Your task to perform on an android device: toggle pop-ups in chrome Image 0: 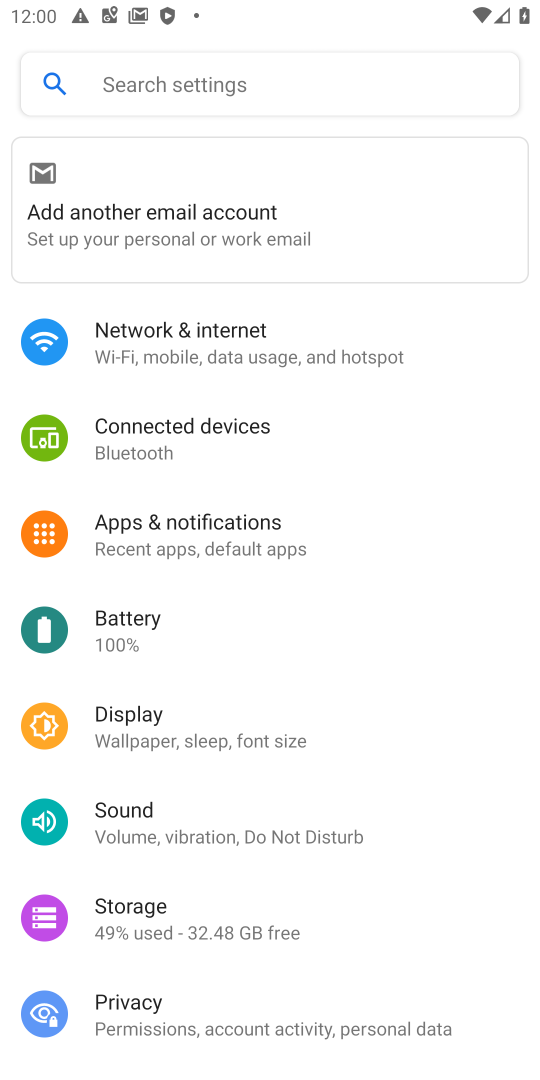
Step 0: press back button
Your task to perform on an android device: toggle pop-ups in chrome Image 1: 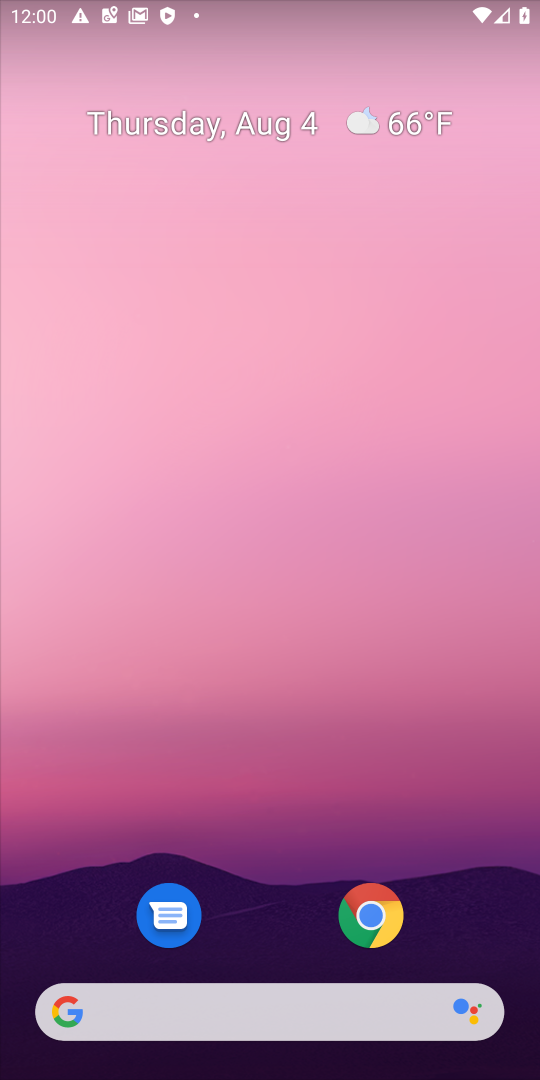
Step 1: click (362, 908)
Your task to perform on an android device: toggle pop-ups in chrome Image 2: 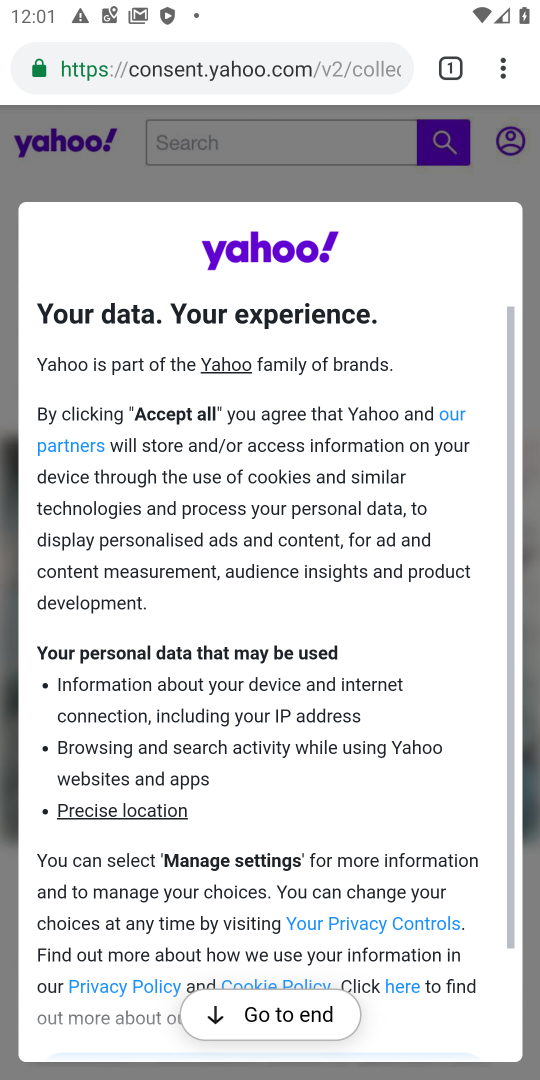
Step 2: click (503, 67)
Your task to perform on an android device: toggle pop-ups in chrome Image 3: 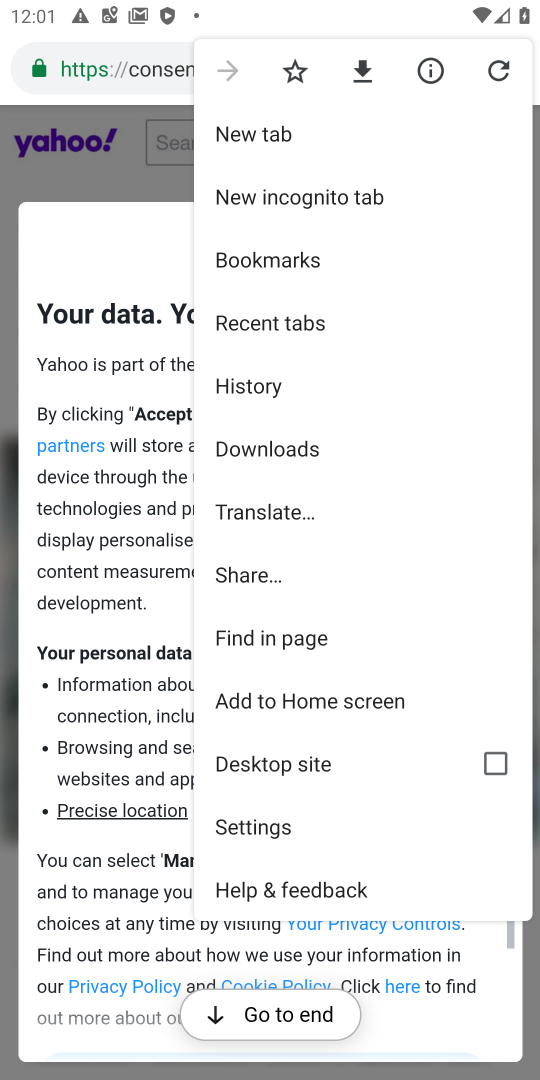
Step 3: click (272, 819)
Your task to perform on an android device: toggle pop-ups in chrome Image 4: 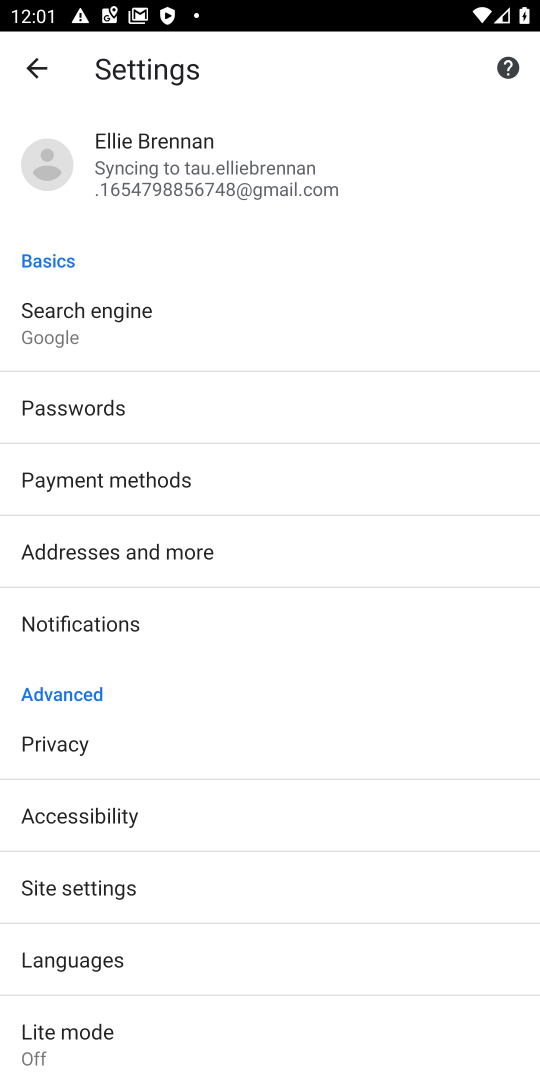
Step 4: click (138, 886)
Your task to perform on an android device: toggle pop-ups in chrome Image 5: 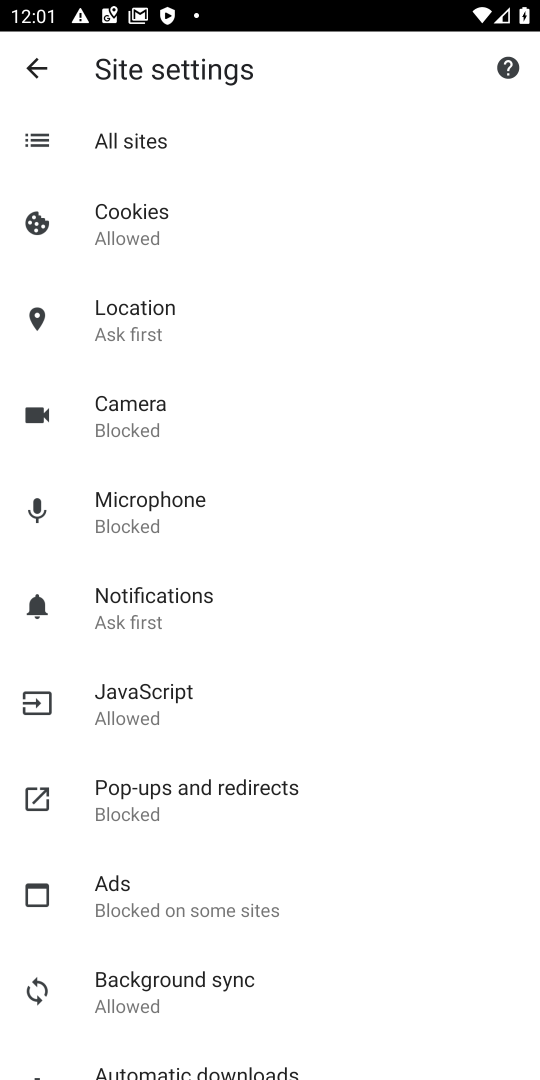
Step 5: click (225, 826)
Your task to perform on an android device: toggle pop-ups in chrome Image 6: 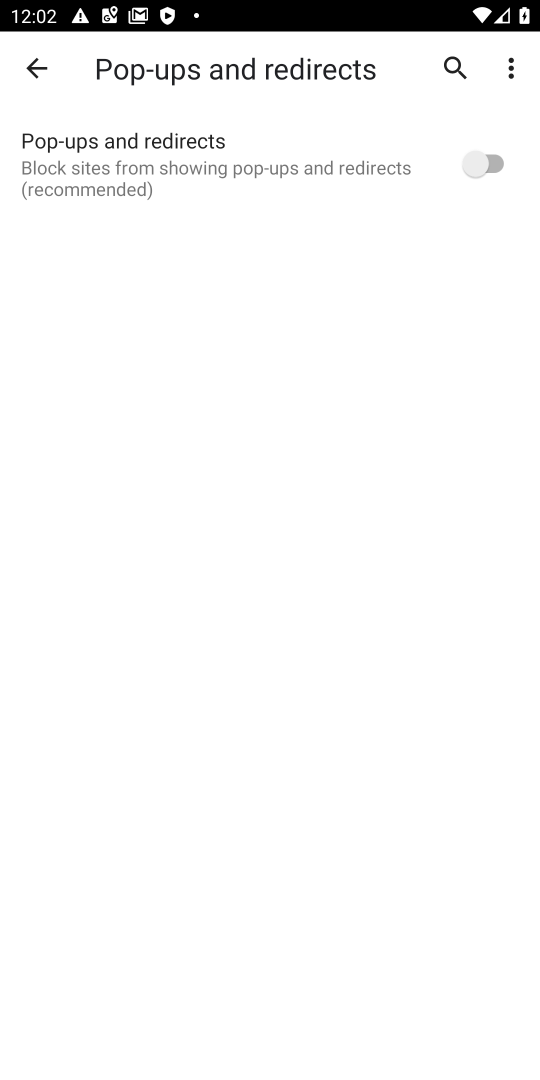
Step 6: click (505, 173)
Your task to perform on an android device: toggle pop-ups in chrome Image 7: 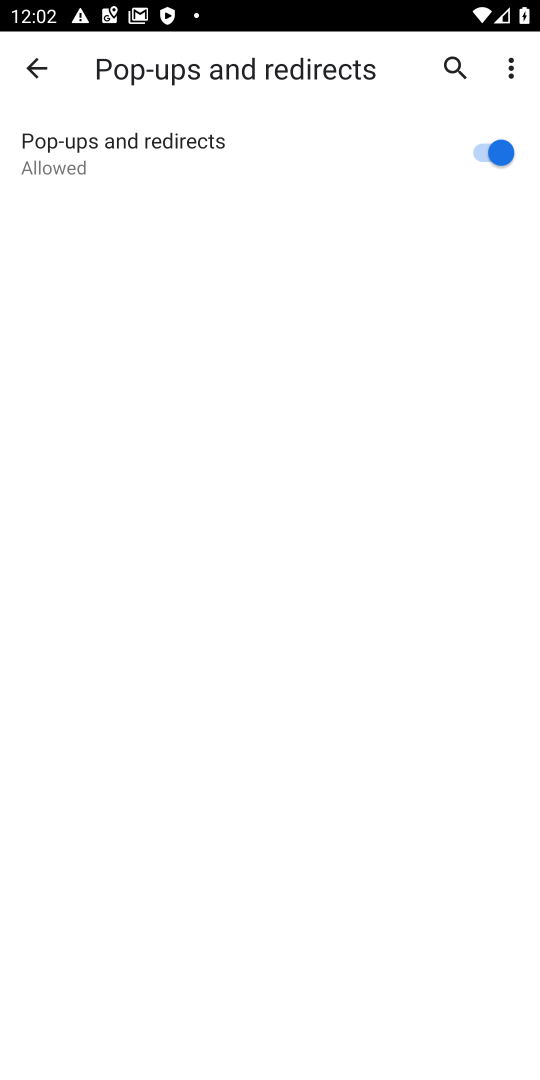
Step 7: task complete